Your task to perform on an android device: open chrome and create a bookmark for the current page Image 0: 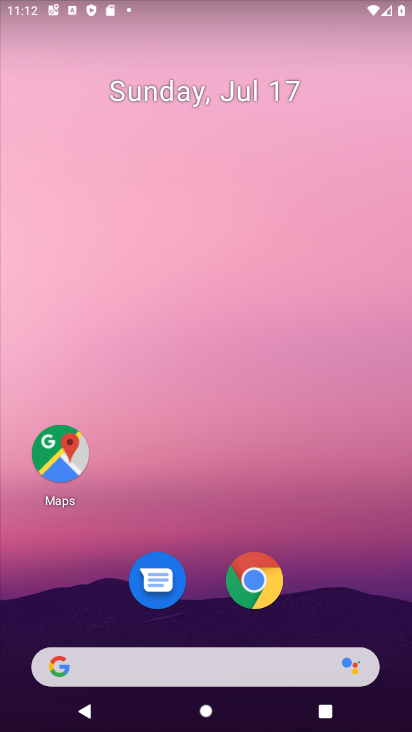
Step 0: drag from (250, 383) to (268, 283)
Your task to perform on an android device: open chrome and create a bookmark for the current page Image 1: 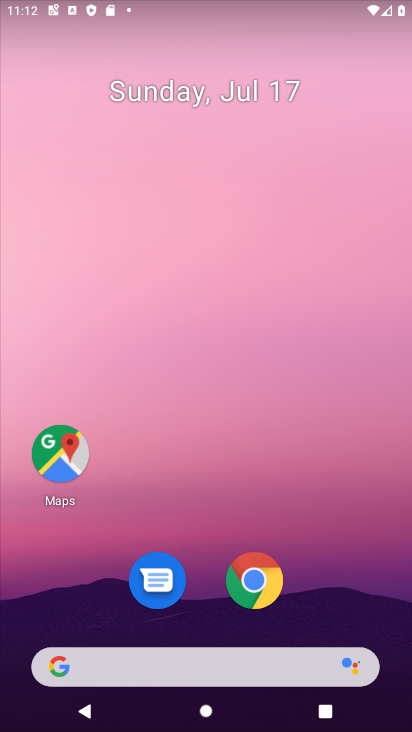
Step 1: drag from (223, 655) to (239, 193)
Your task to perform on an android device: open chrome and create a bookmark for the current page Image 2: 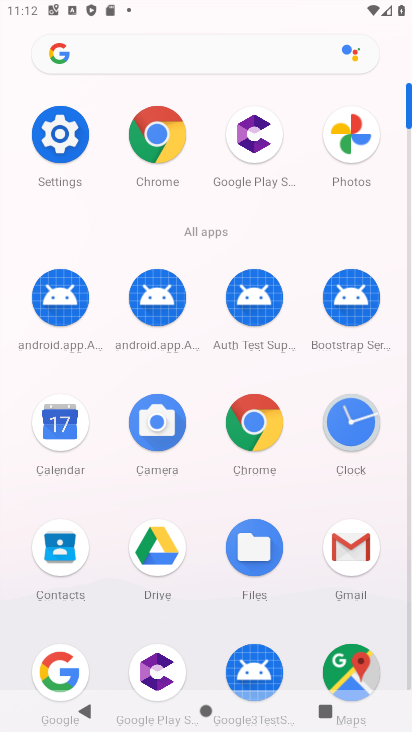
Step 2: click (273, 447)
Your task to perform on an android device: open chrome and create a bookmark for the current page Image 3: 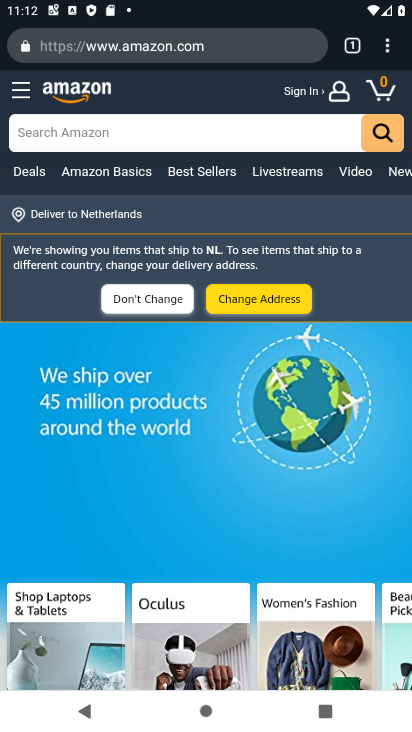
Step 3: click (386, 49)
Your task to perform on an android device: open chrome and create a bookmark for the current page Image 4: 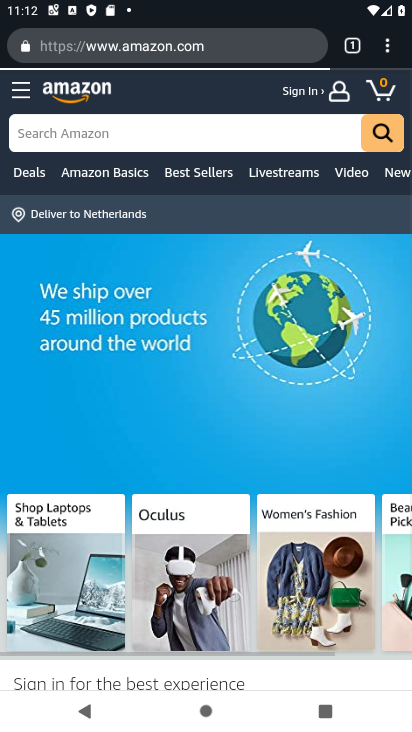
Step 4: click (388, 52)
Your task to perform on an android device: open chrome and create a bookmark for the current page Image 5: 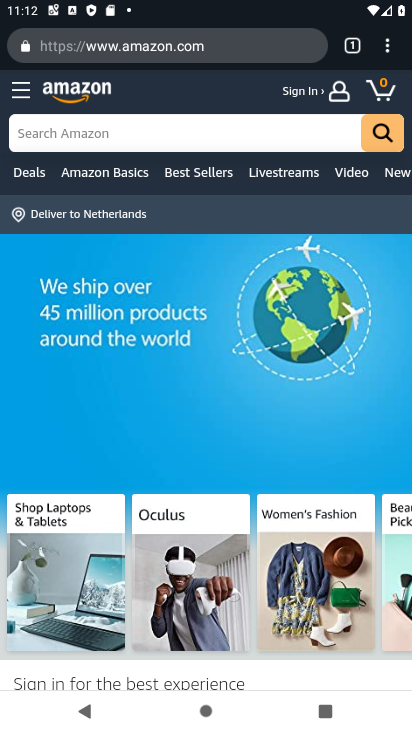
Step 5: click (388, 53)
Your task to perform on an android device: open chrome and create a bookmark for the current page Image 6: 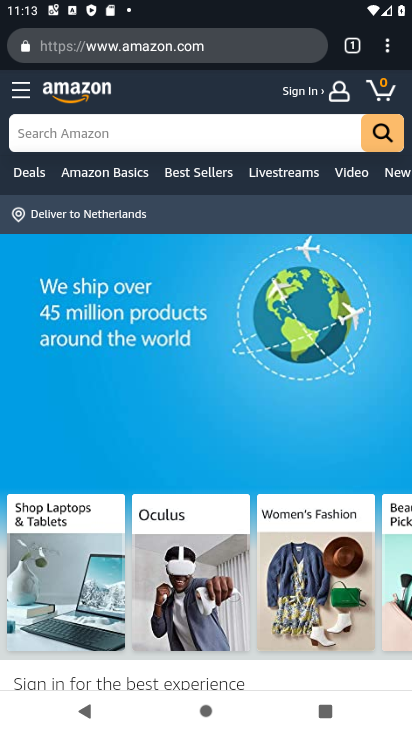
Step 6: click (386, 56)
Your task to perform on an android device: open chrome and create a bookmark for the current page Image 7: 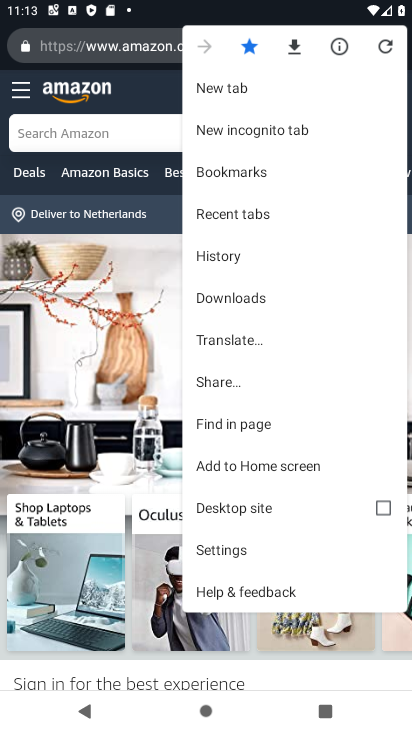
Step 7: task complete